Your task to perform on an android device: What is the news today? Image 0: 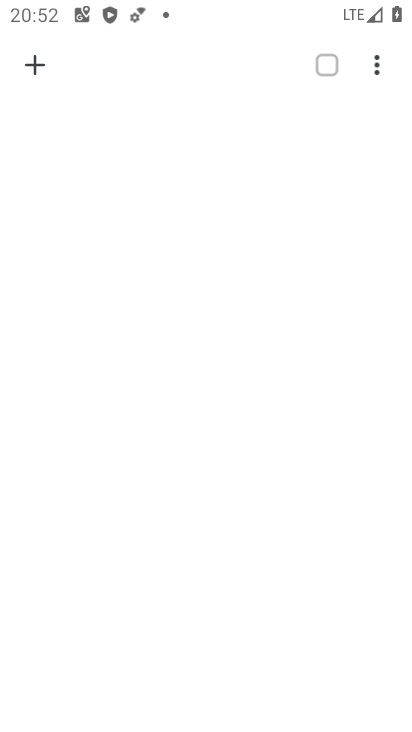
Step 0: press home button
Your task to perform on an android device: What is the news today? Image 1: 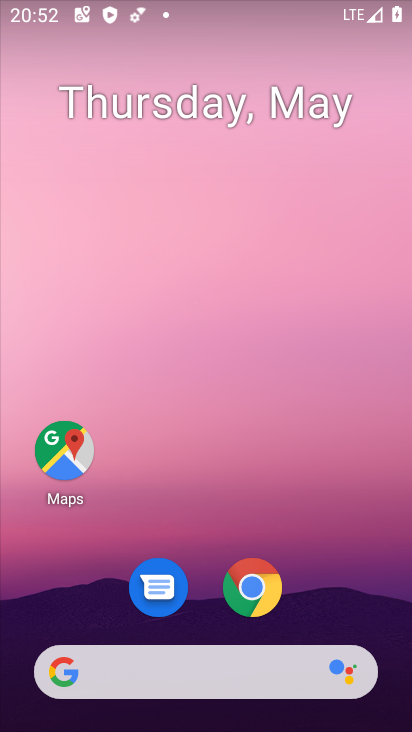
Step 1: click (202, 679)
Your task to perform on an android device: What is the news today? Image 2: 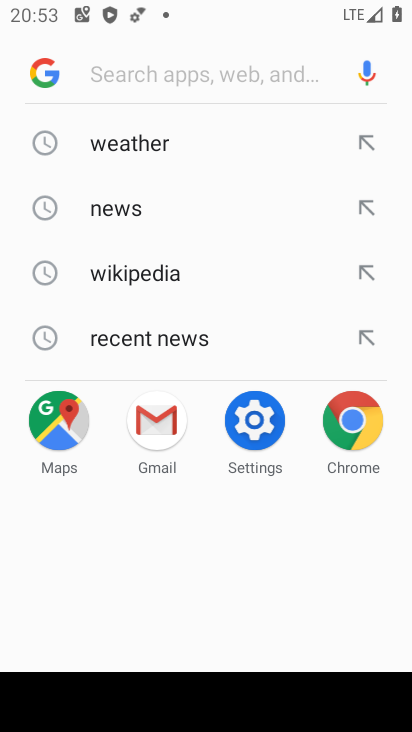
Step 2: type "news today"
Your task to perform on an android device: What is the news today? Image 3: 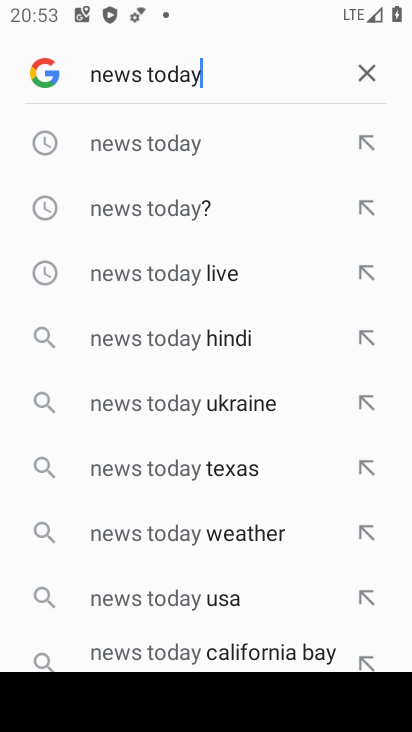
Step 3: click (202, 154)
Your task to perform on an android device: What is the news today? Image 4: 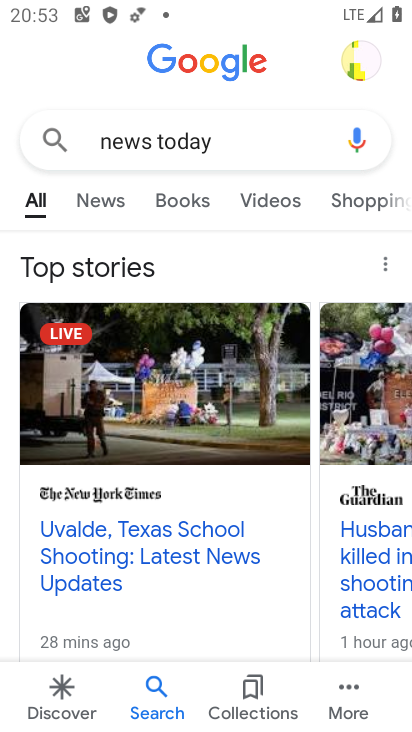
Step 4: task complete